Your task to perform on an android device: toggle location history Image 0: 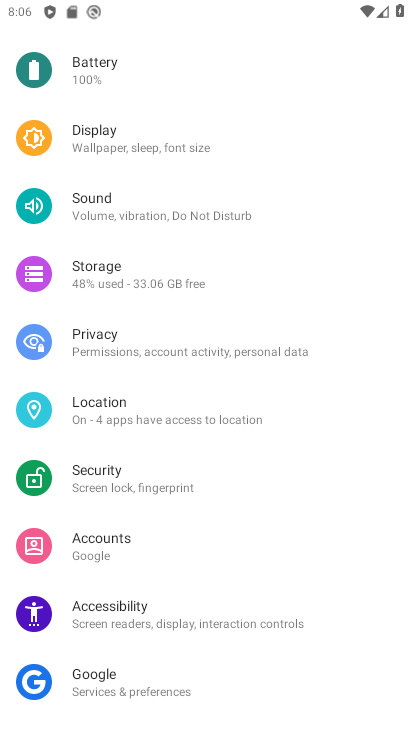
Step 0: click (181, 425)
Your task to perform on an android device: toggle location history Image 1: 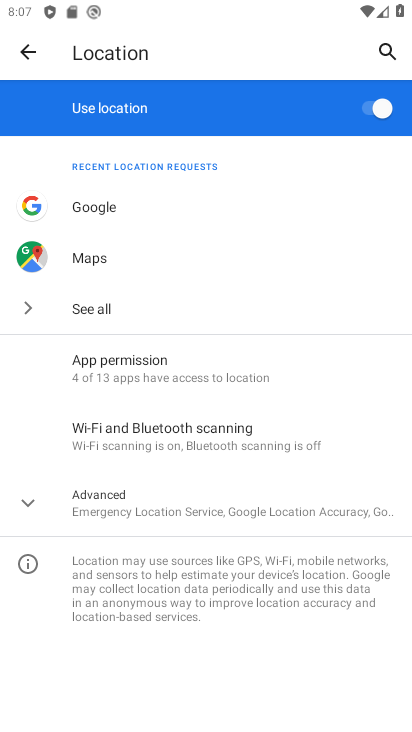
Step 1: click (215, 509)
Your task to perform on an android device: toggle location history Image 2: 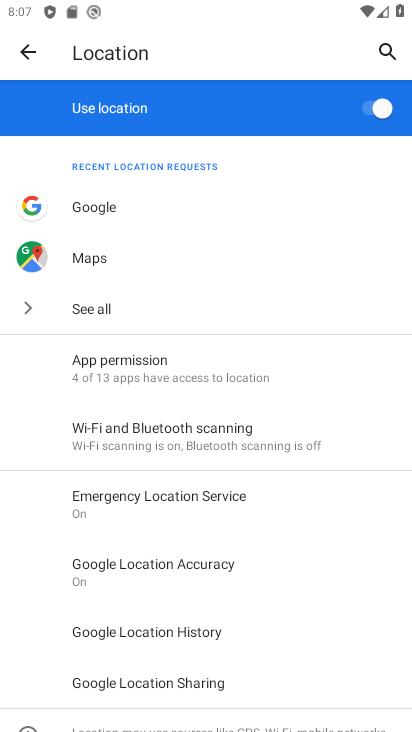
Step 2: click (255, 640)
Your task to perform on an android device: toggle location history Image 3: 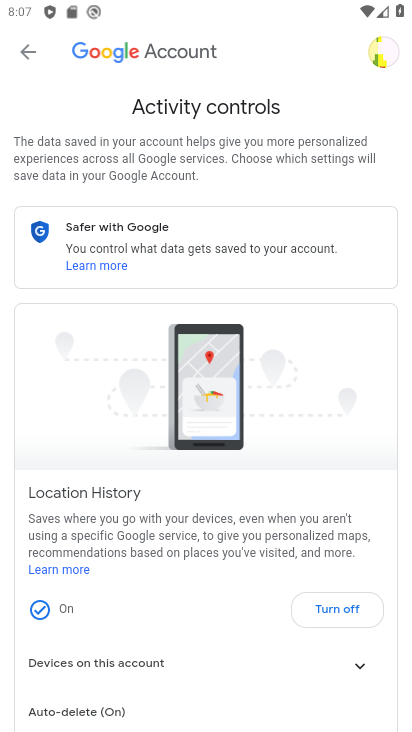
Step 3: click (333, 603)
Your task to perform on an android device: toggle location history Image 4: 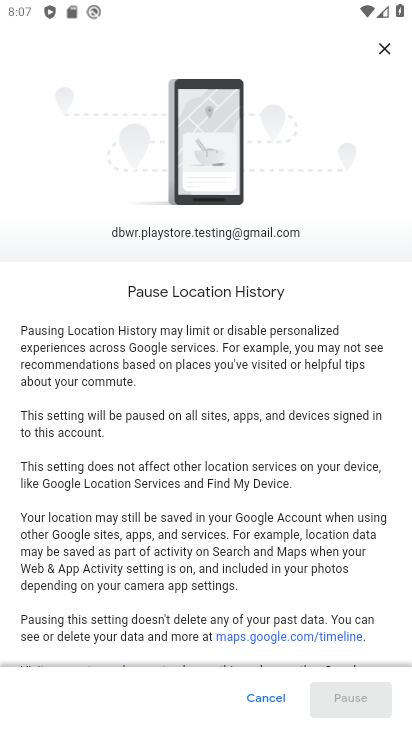
Step 4: drag from (317, 587) to (322, 297)
Your task to perform on an android device: toggle location history Image 5: 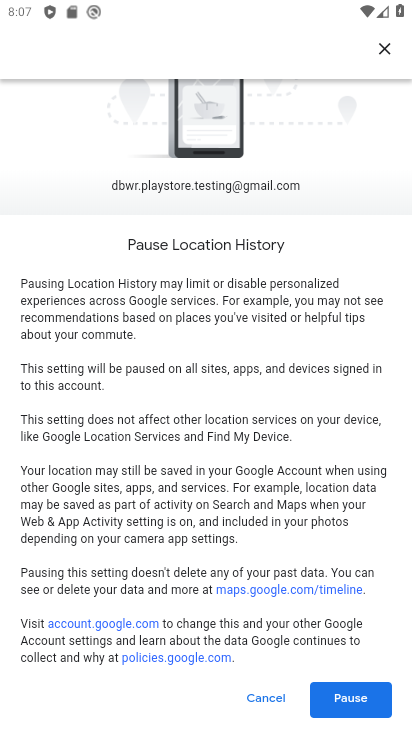
Step 5: drag from (322, 466) to (312, 243)
Your task to perform on an android device: toggle location history Image 6: 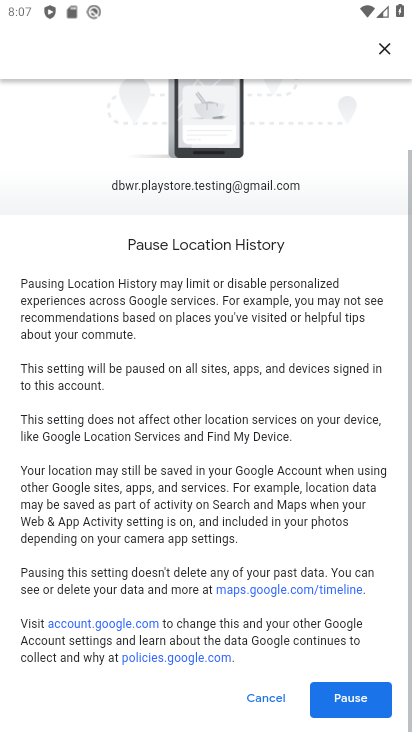
Step 6: drag from (303, 538) to (269, 249)
Your task to perform on an android device: toggle location history Image 7: 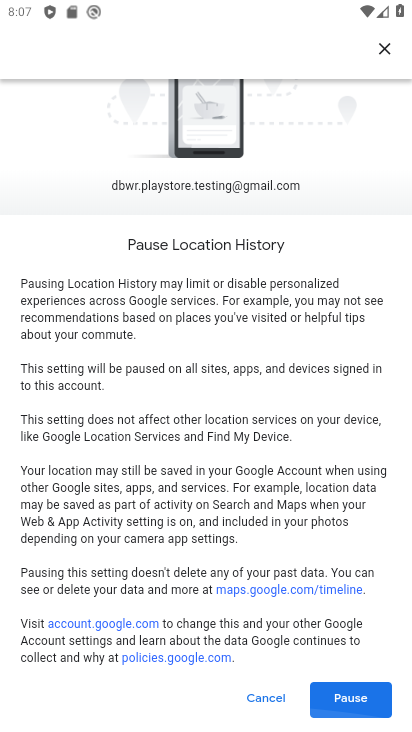
Step 7: drag from (259, 564) to (276, 332)
Your task to perform on an android device: toggle location history Image 8: 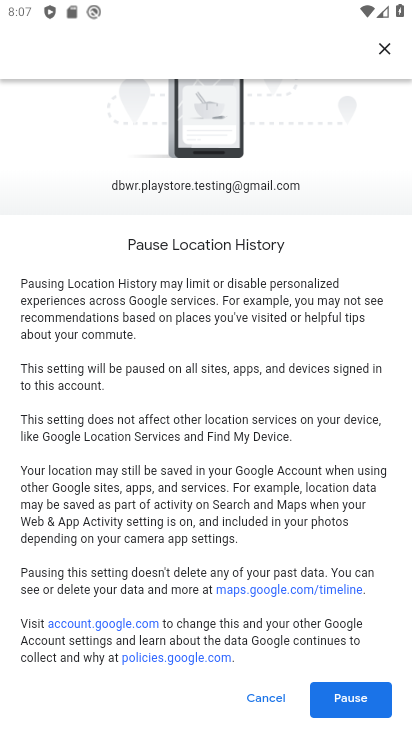
Step 8: click (341, 692)
Your task to perform on an android device: toggle location history Image 9: 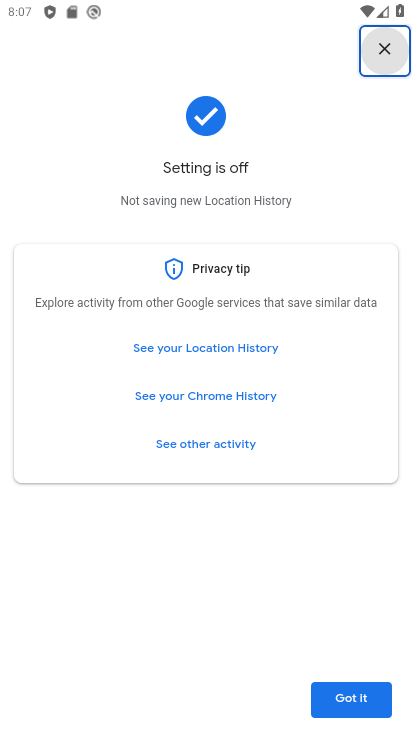
Step 9: task complete